Your task to perform on an android device: see tabs open on other devices in the chrome app Image 0: 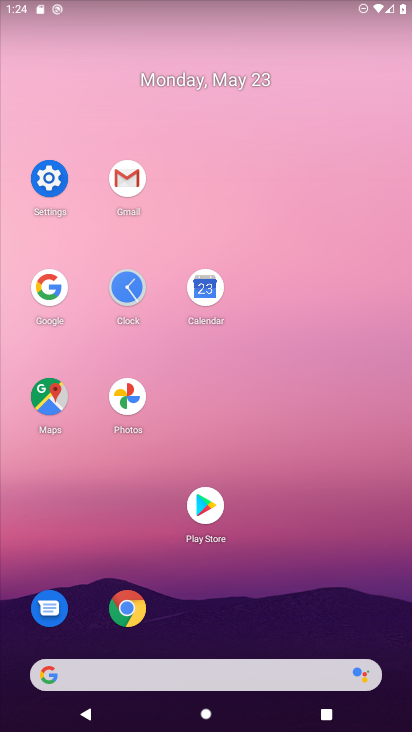
Step 0: click (140, 615)
Your task to perform on an android device: see tabs open on other devices in the chrome app Image 1: 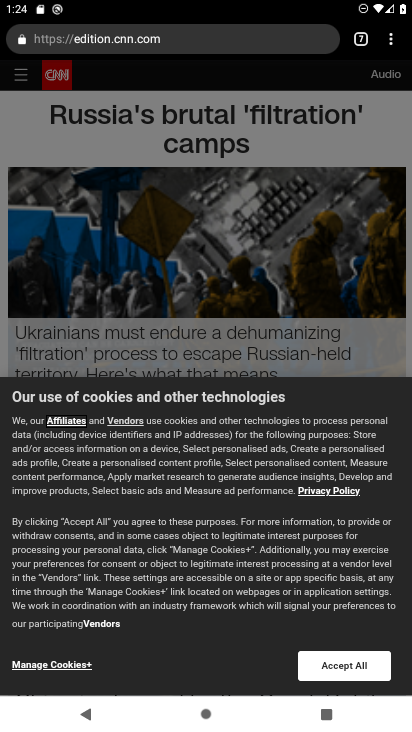
Step 1: click (396, 42)
Your task to perform on an android device: see tabs open on other devices in the chrome app Image 2: 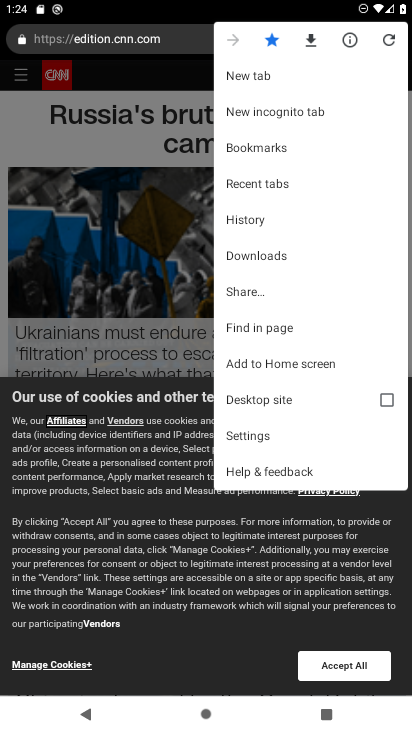
Step 2: click (266, 178)
Your task to perform on an android device: see tabs open on other devices in the chrome app Image 3: 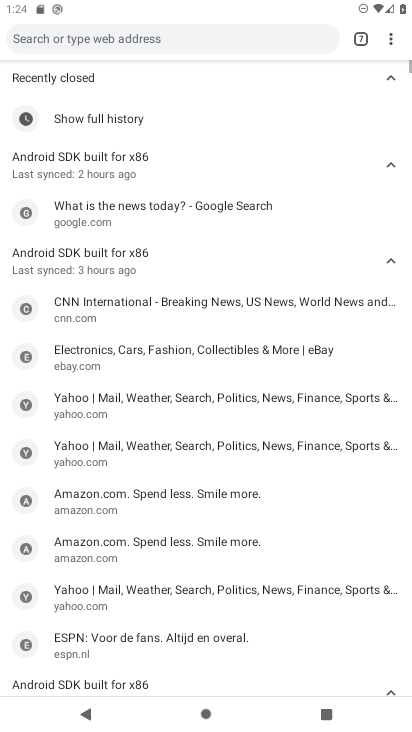
Step 3: click (82, 122)
Your task to perform on an android device: see tabs open on other devices in the chrome app Image 4: 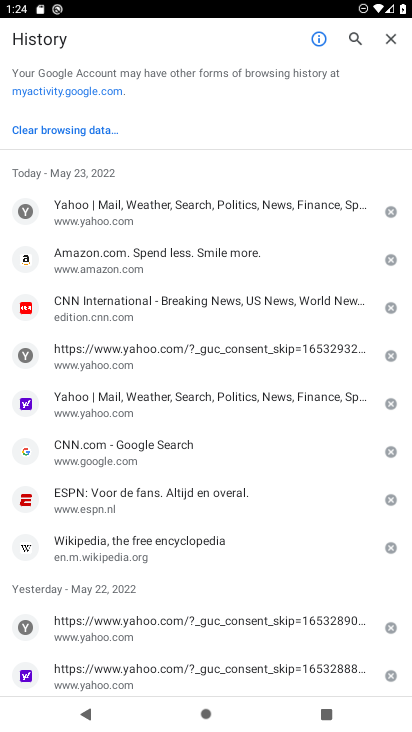
Step 4: task complete